Your task to perform on an android device: empty trash in google photos Image 0: 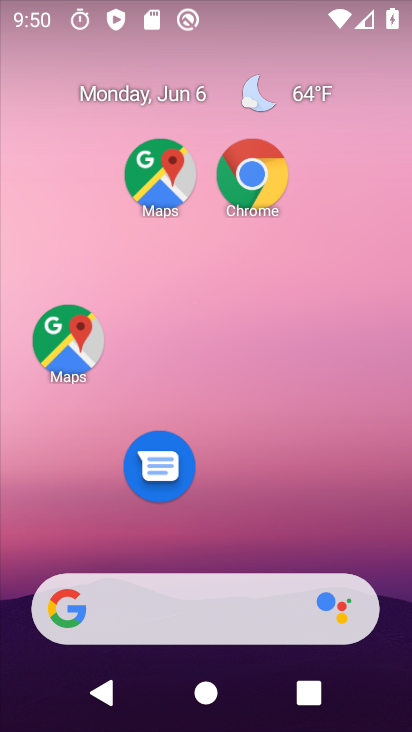
Step 0: drag from (258, 672) to (245, 5)
Your task to perform on an android device: empty trash in google photos Image 1: 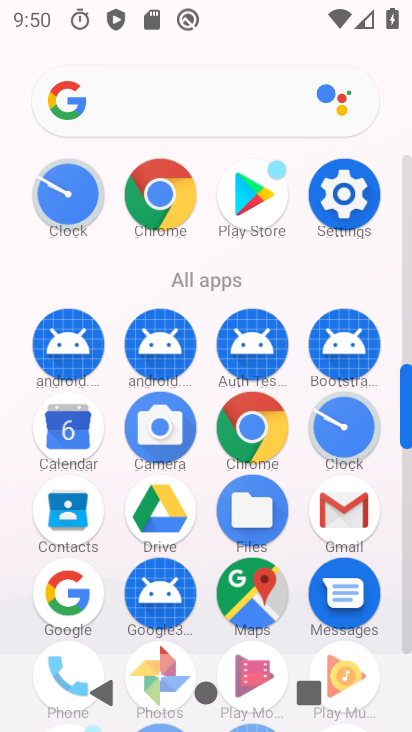
Step 1: drag from (312, 602) to (290, 196)
Your task to perform on an android device: empty trash in google photos Image 2: 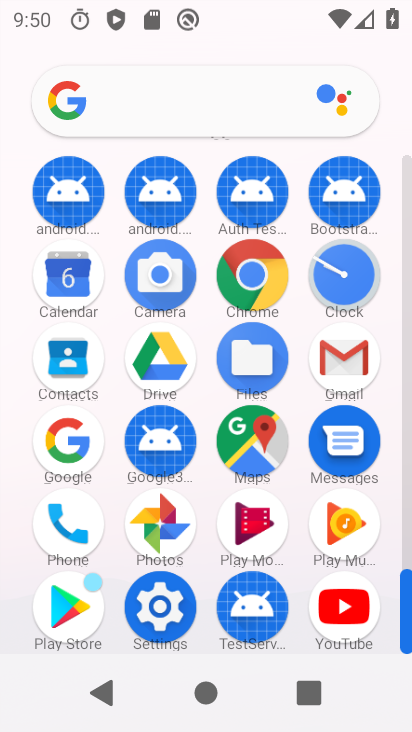
Step 2: drag from (306, 429) to (293, 131)
Your task to perform on an android device: empty trash in google photos Image 3: 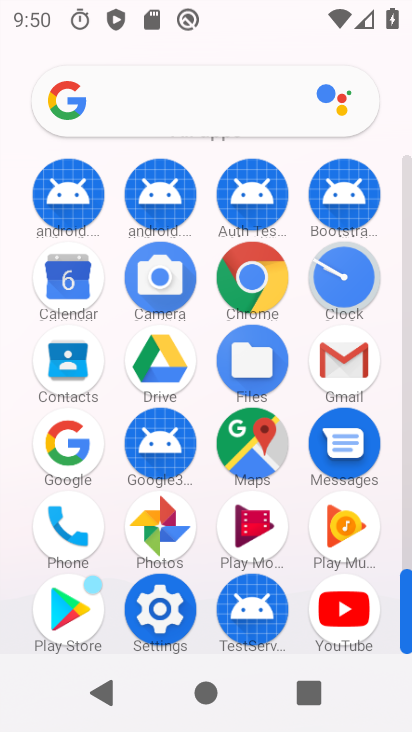
Step 3: click (154, 524)
Your task to perform on an android device: empty trash in google photos Image 4: 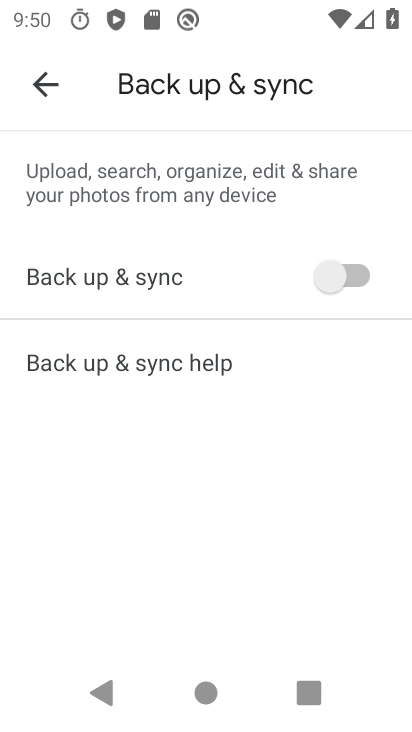
Step 4: click (41, 78)
Your task to perform on an android device: empty trash in google photos Image 5: 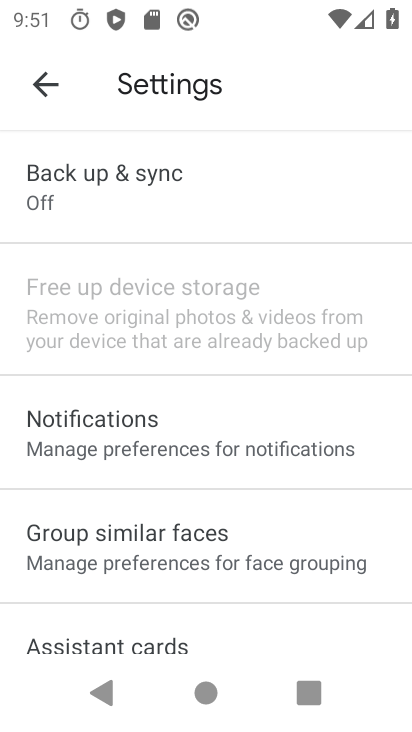
Step 5: click (39, 82)
Your task to perform on an android device: empty trash in google photos Image 6: 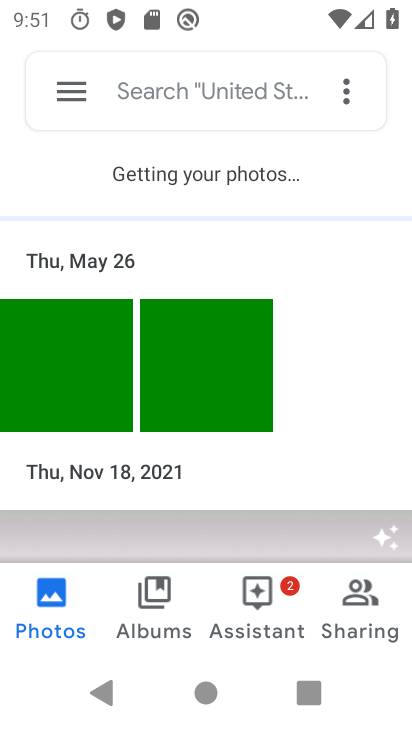
Step 6: click (68, 78)
Your task to perform on an android device: empty trash in google photos Image 7: 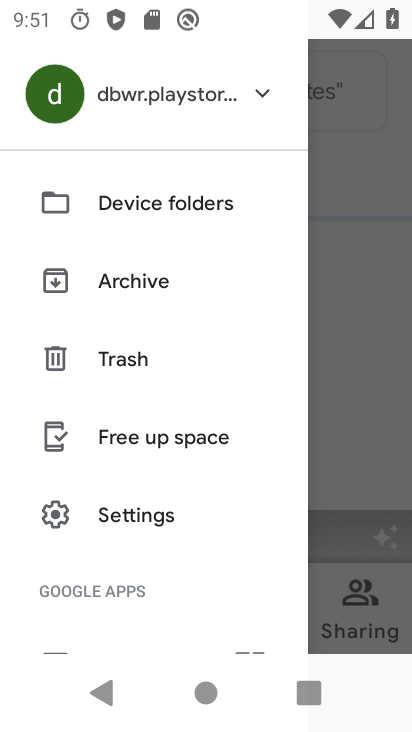
Step 7: click (130, 354)
Your task to perform on an android device: empty trash in google photos Image 8: 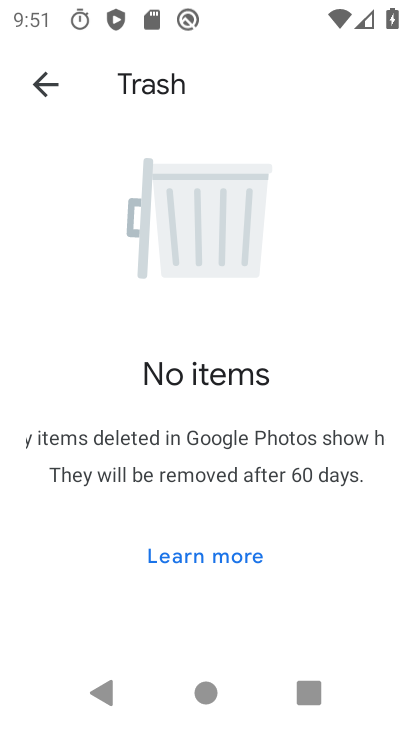
Step 8: task complete